Your task to perform on an android device: Search for macbook pro on amazon.com, select the first entry, add it to the cart, then select checkout. Image 0: 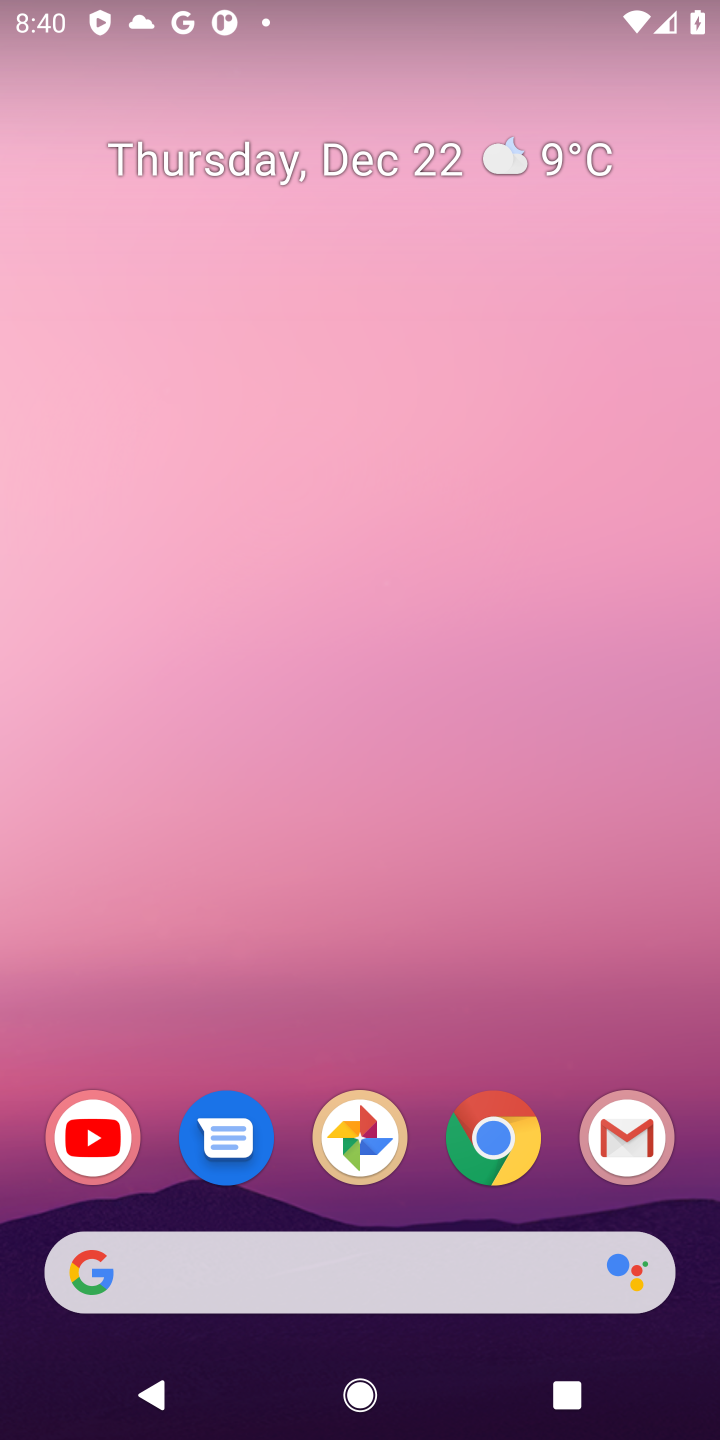
Step 0: click (496, 1149)
Your task to perform on an android device: Search for macbook pro on amazon.com, select the first entry, add it to the cart, then select checkout. Image 1: 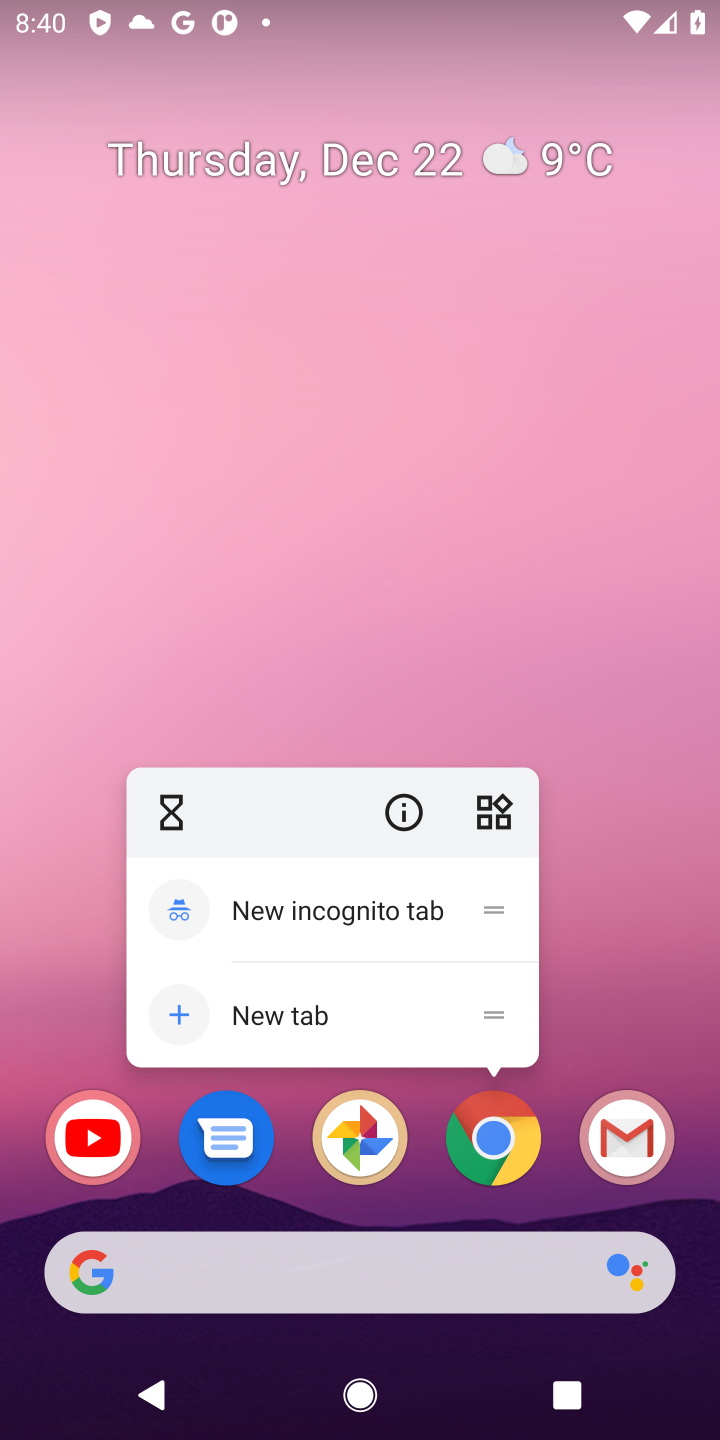
Step 1: click (489, 1149)
Your task to perform on an android device: Search for macbook pro on amazon.com, select the first entry, add it to the cart, then select checkout. Image 2: 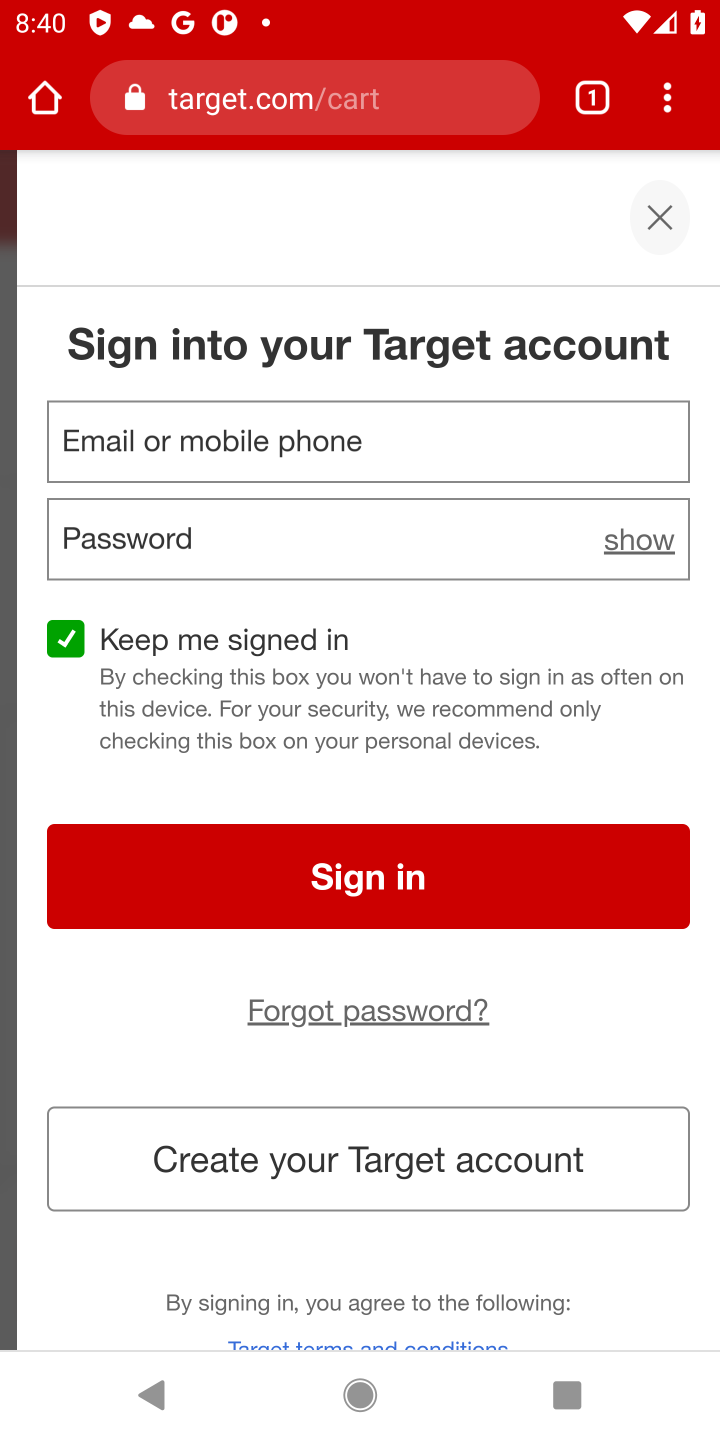
Step 2: click (292, 106)
Your task to perform on an android device: Search for macbook pro on amazon.com, select the first entry, add it to the cart, then select checkout. Image 3: 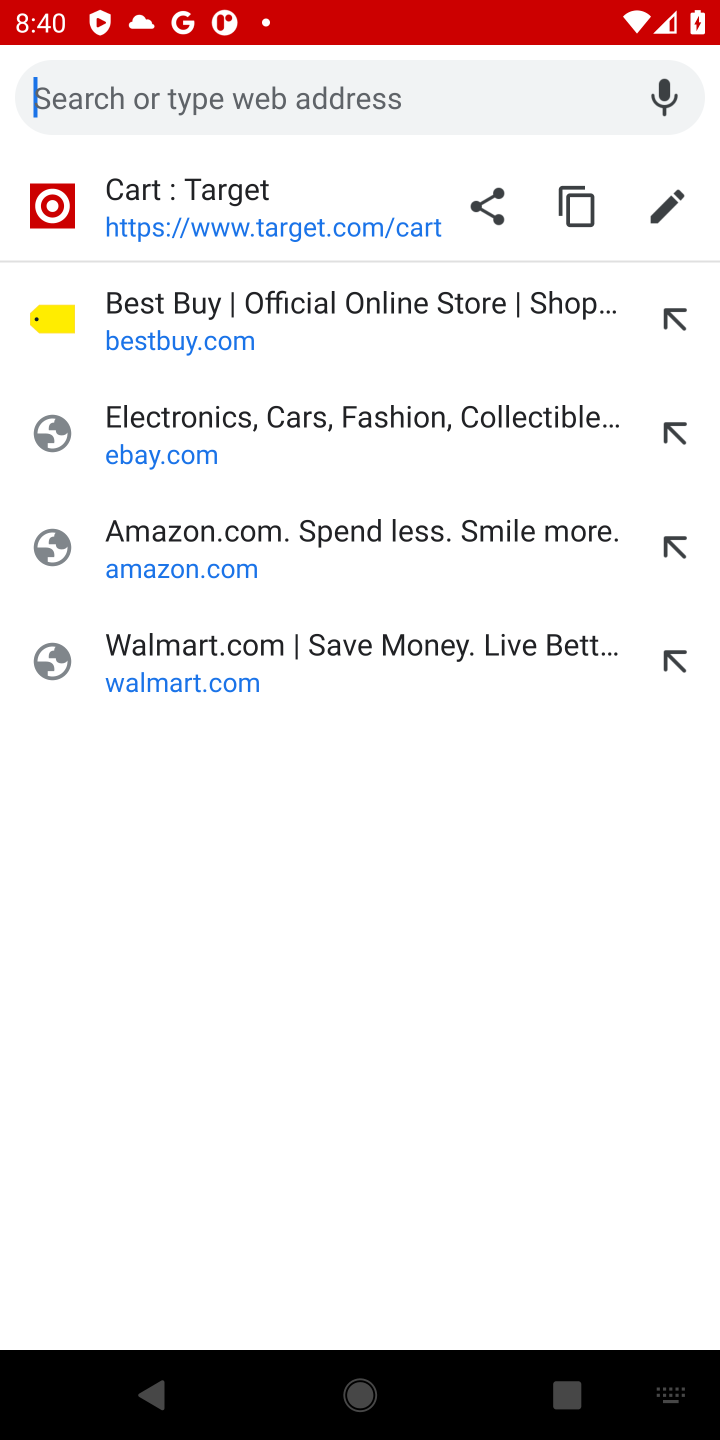
Step 3: type "amazon.com"
Your task to perform on an android device: Search for macbook pro on amazon.com, select the first entry, add it to the cart, then select checkout. Image 4: 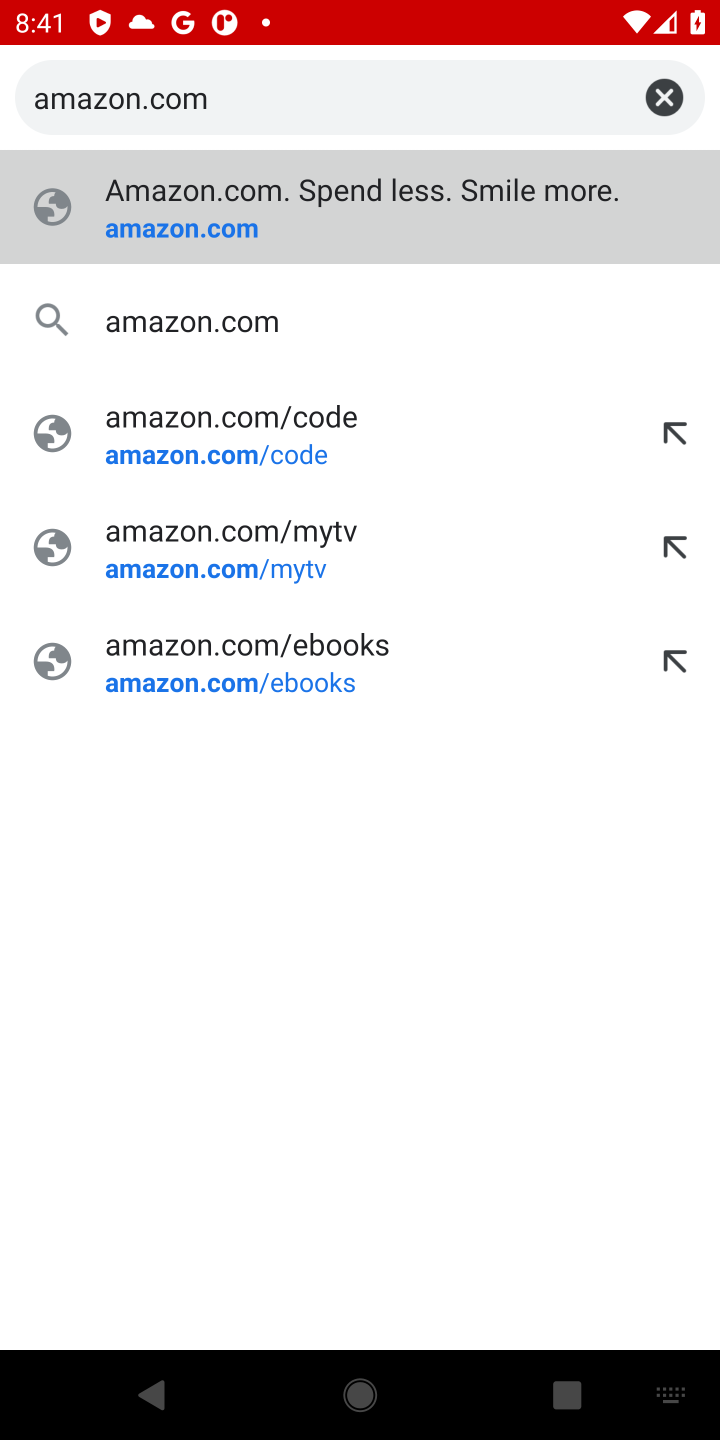
Step 4: click (414, 235)
Your task to perform on an android device: Search for macbook pro on amazon.com, select the first entry, add it to the cart, then select checkout. Image 5: 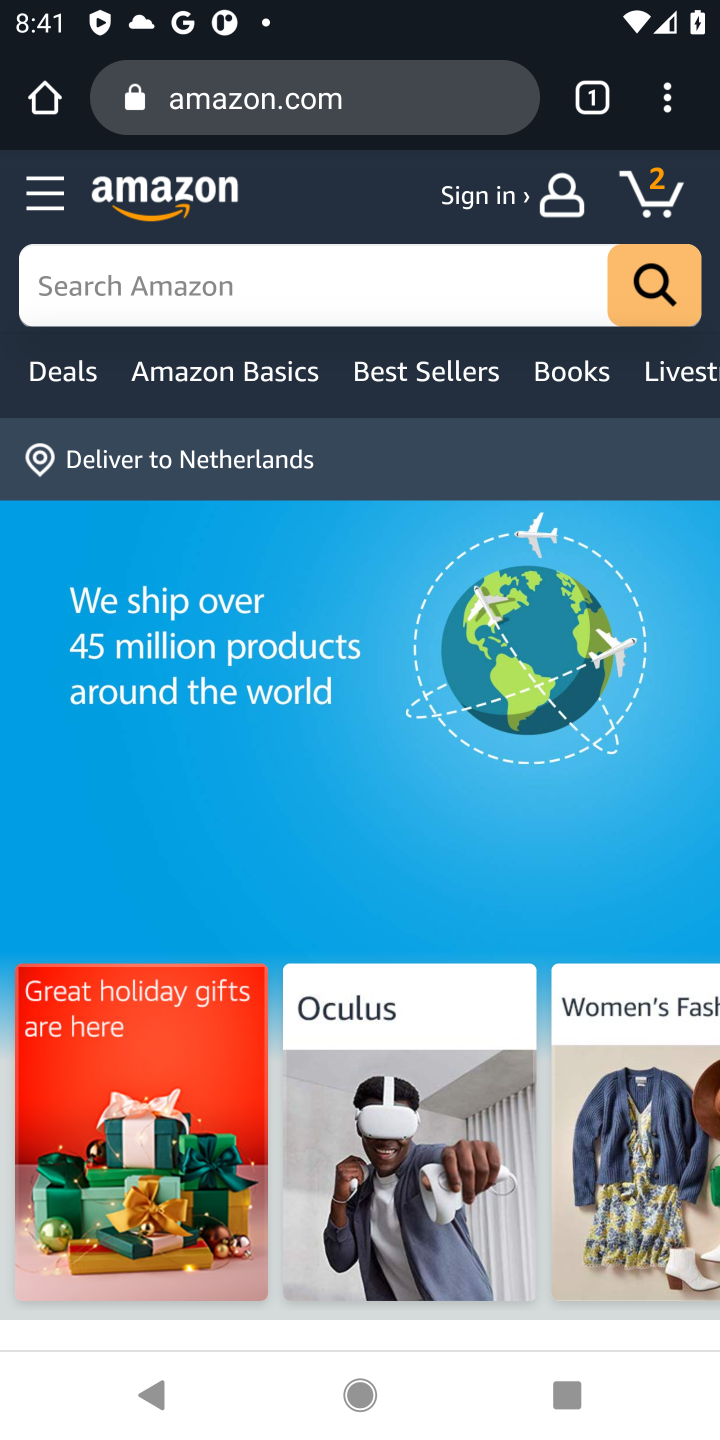
Step 5: click (322, 287)
Your task to perform on an android device: Search for macbook pro on amazon.com, select the first entry, add it to the cart, then select checkout. Image 6: 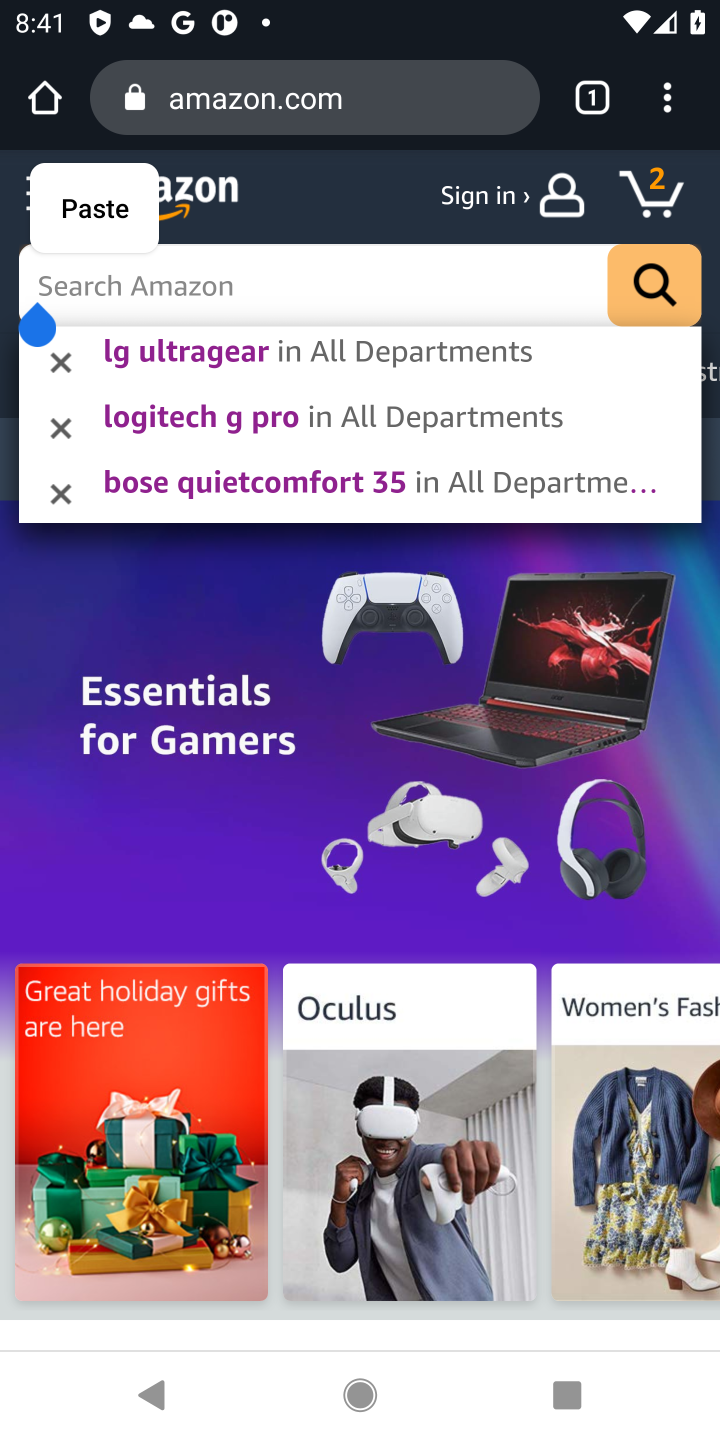
Step 6: type "macbook pro"
Your task to perform on an android device: Search for macbook pro on amazon.com, select the first entry, add it to the cart, then select checkout. Image 7: 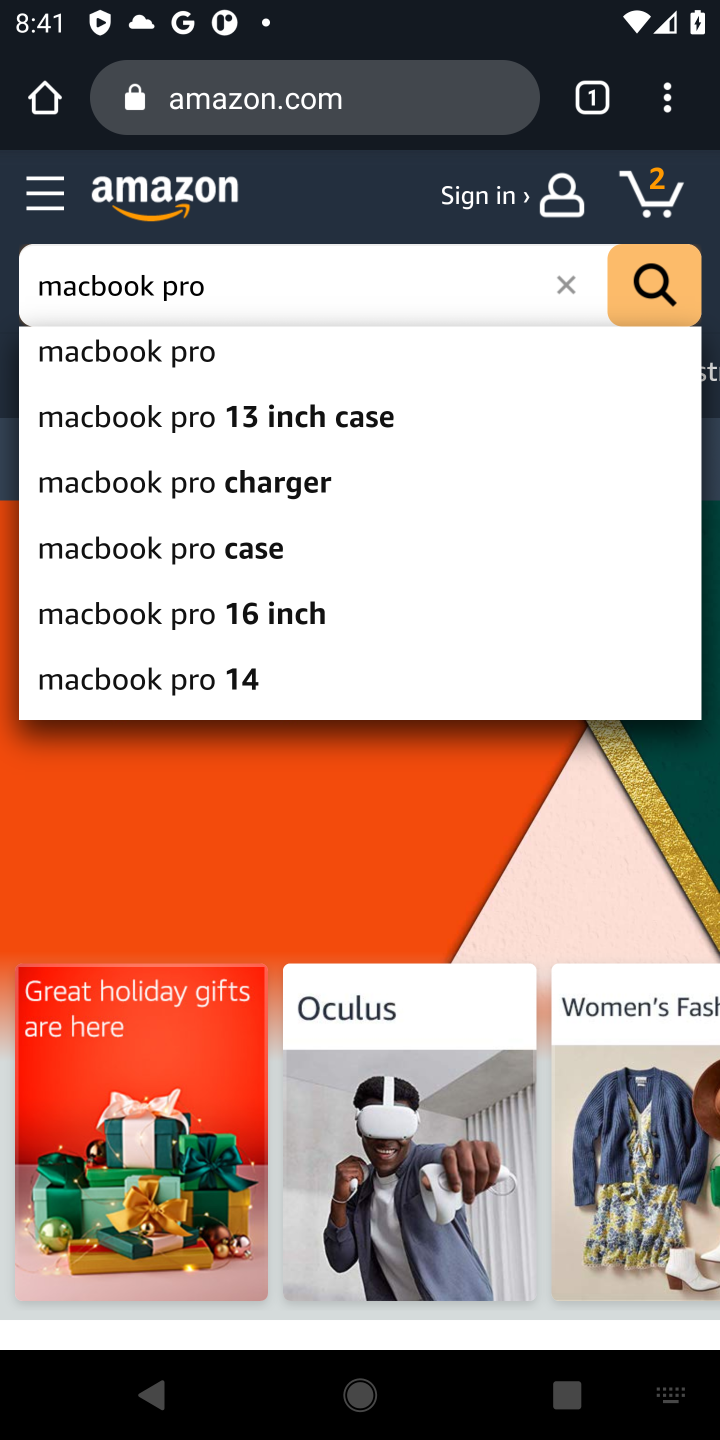
Step 7: click (293, 350)
Your task to perform on an android device: Search for macbook pro on amazon.com, select the first entry, add it to the cart, then select checkout. Image 8: 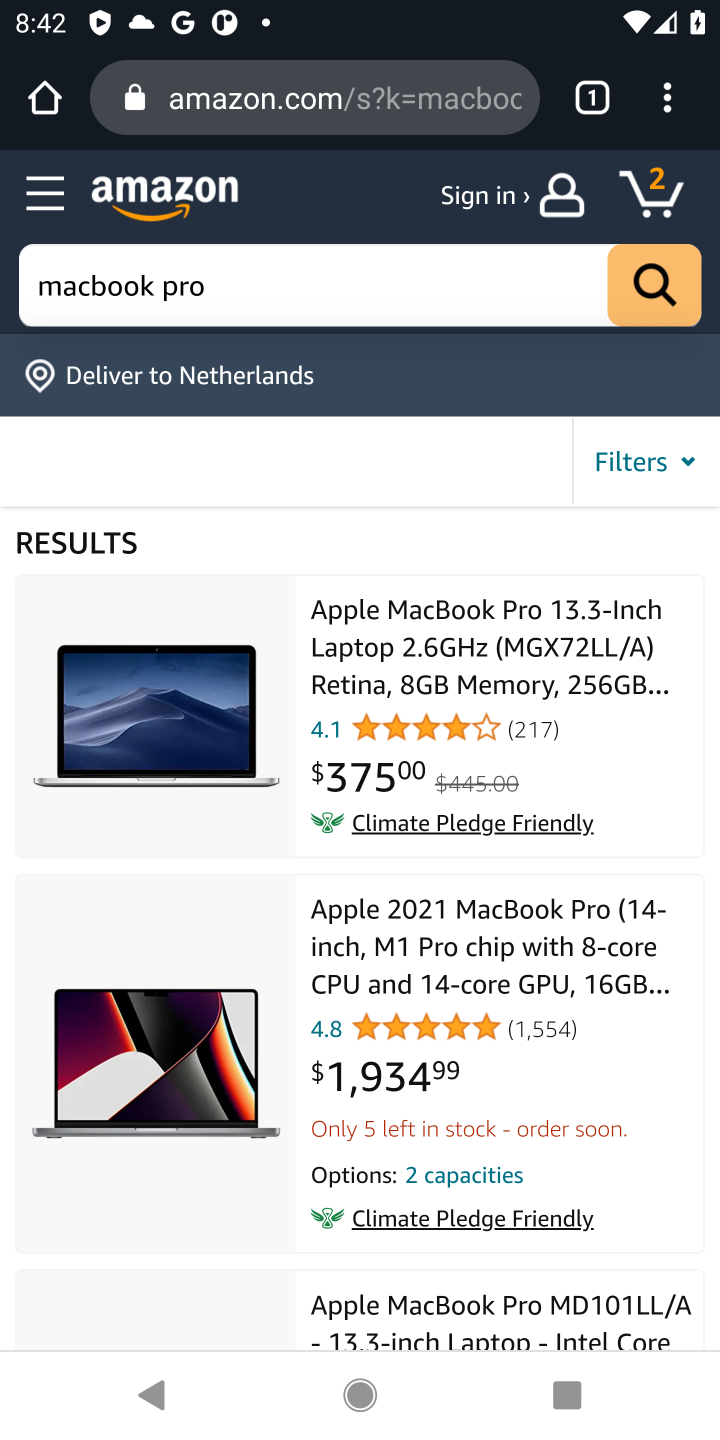
Step 8: click (382, 675)
Your task to perform on an android device: Search for macbook pro on amazon.com, select the first entry, add it to the cart, then select checkout. Image 9: 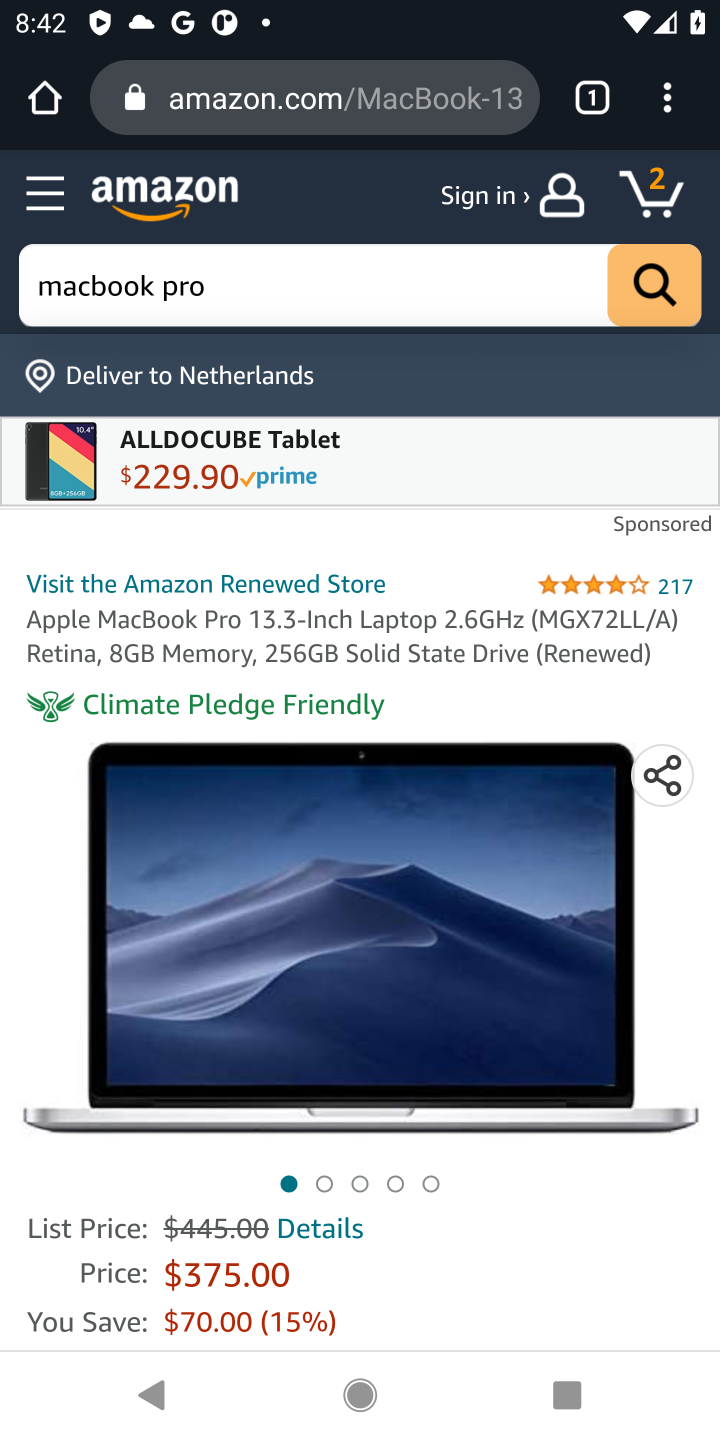
Step 9: drag from (478, 688) to (506, 261)
Your task to perform on an android device: Search for macbook pro on amazon.com, select the first entry, add it to the cart, then select checkout. Image 10: 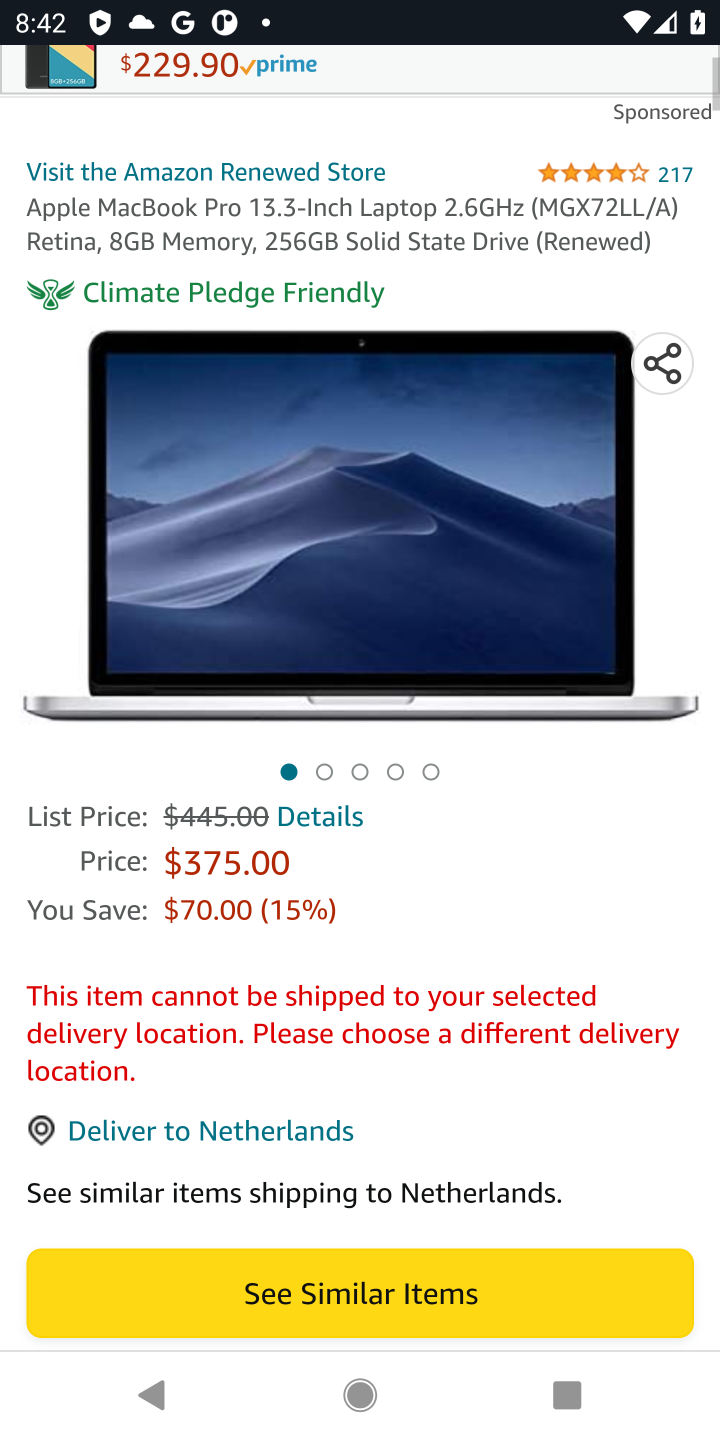
Step 10: drag from (459, 1112) to (564, 554)
Your task to perform on an android device: Search for macbook pro on amazon.com, select the first entry, add it to the cart, then select checkout. Image 11: 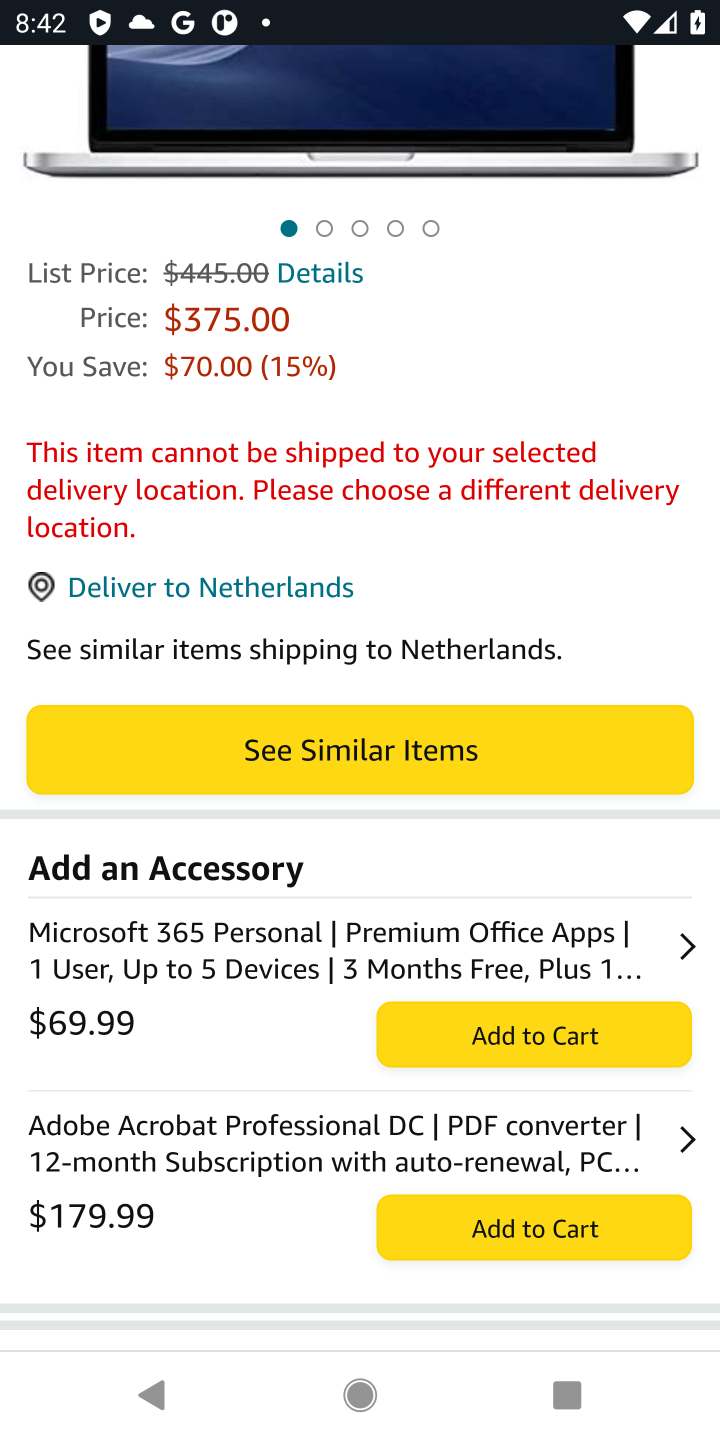
Step 11: click (255, 588)
Your task to perform on an android device: Search for macbook pro on amazon.com, select the first entry, add it to the cart, then select checkout. Image 12: 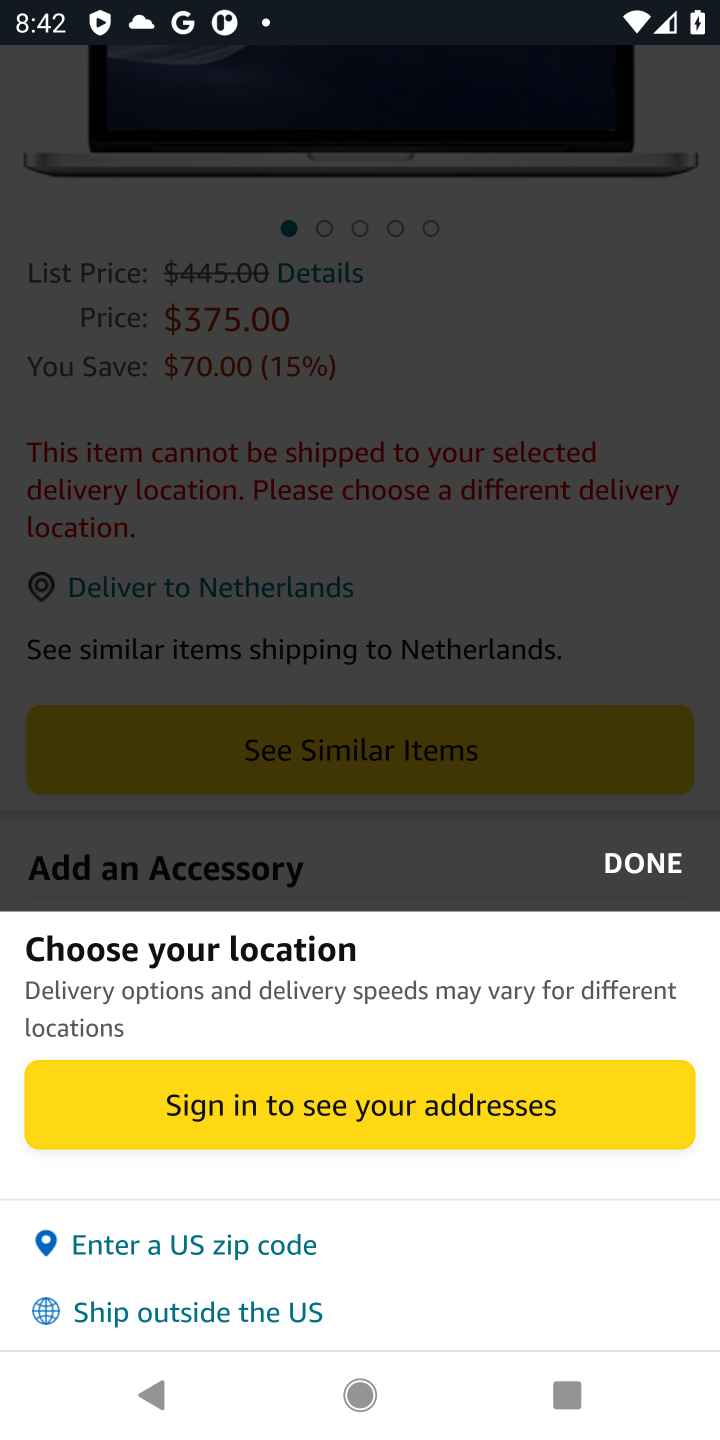
Step 12: click (239, 1319)
Your task to perform on an android device: Search for macbook pro on amazon.com, select the first entry, add it to the cart, then select checkout. Image 13: 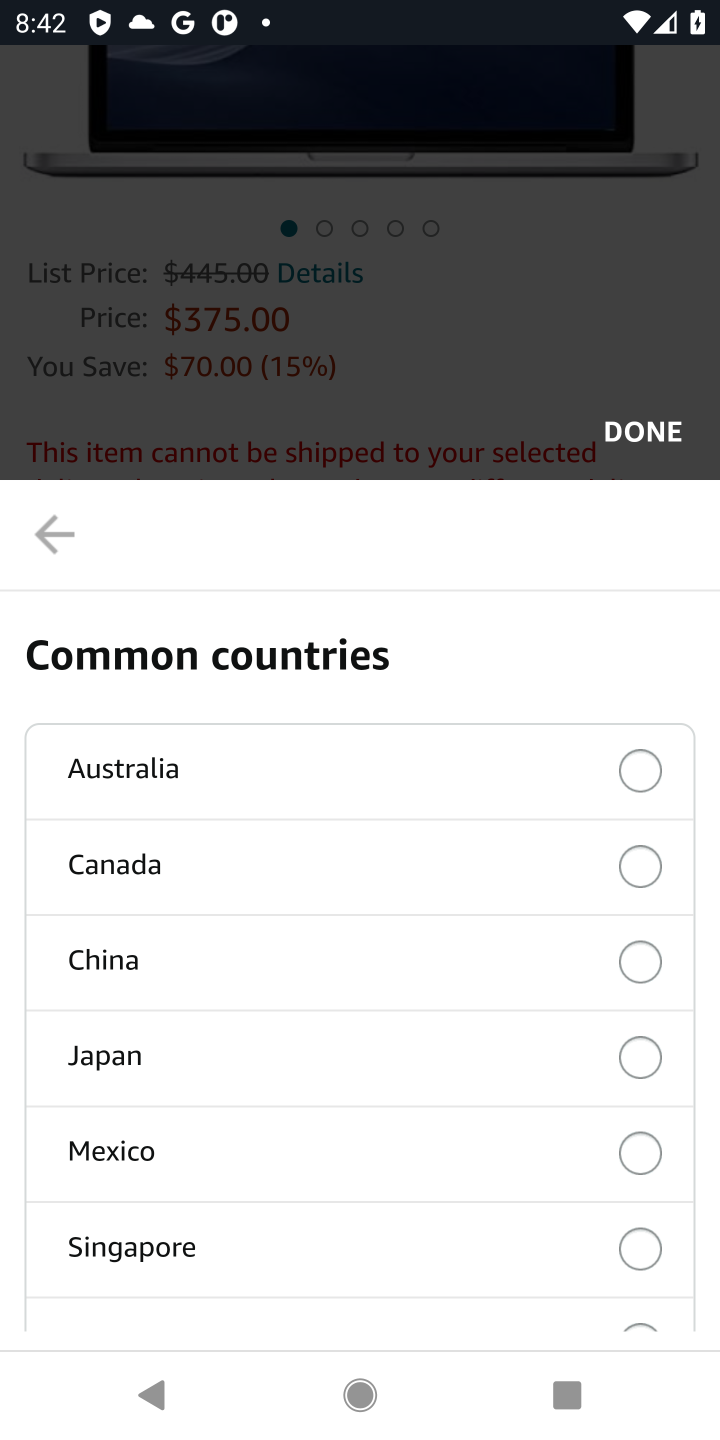
Step 13: click (51, 546)
Your task to perform on an android device: Search for macbook pro on amazon.com, select the first entry, add it to the cart, then select checkout. Image 14: 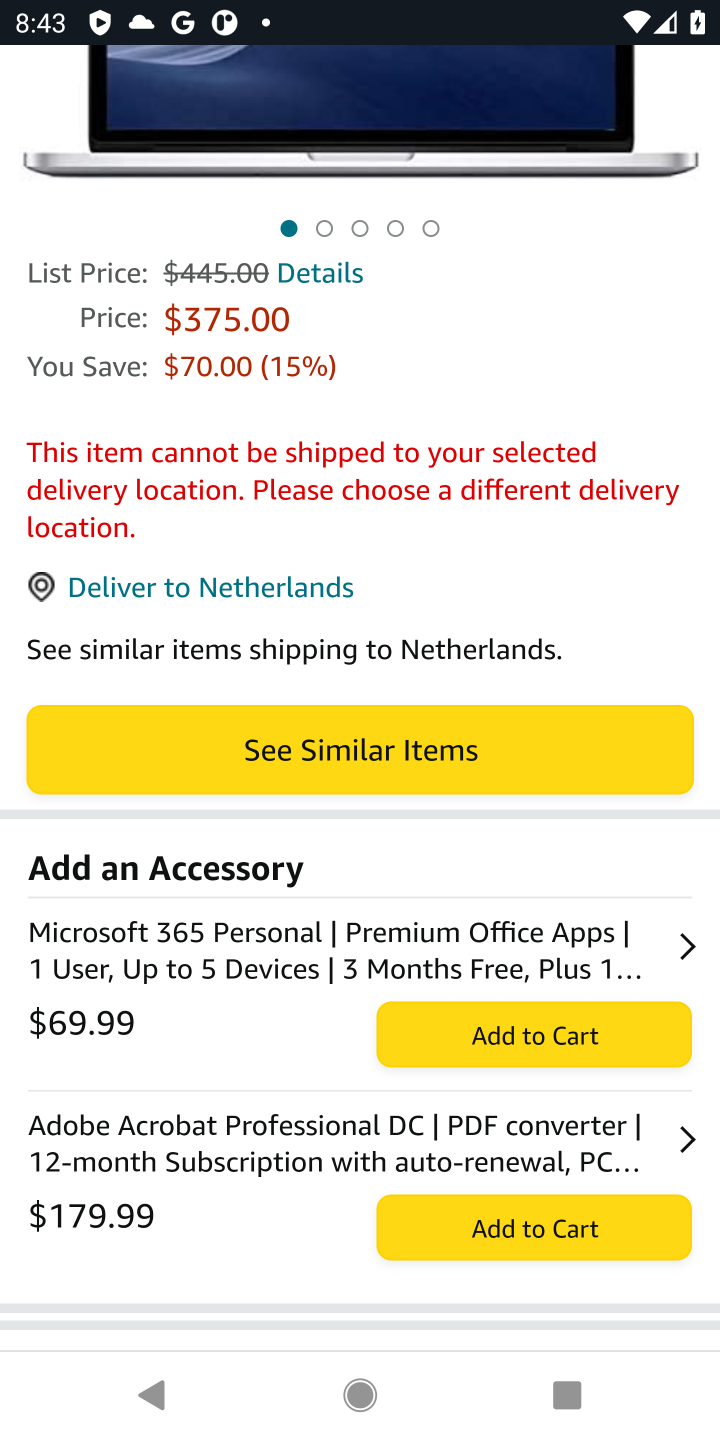
Step 14: task complete